Your task to perform on an android device: turn pop-ups on in chrome Image 0: 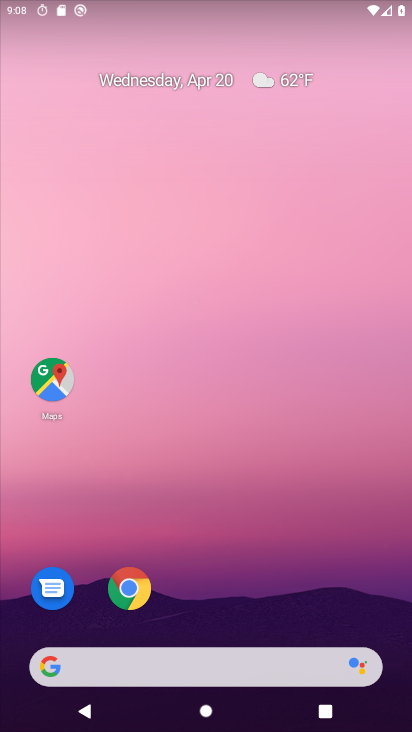
Step 0: drag from (303, 568) to (244, 36)
Your task to perform on an android device: turn pop-ups on in chrome Image 1: 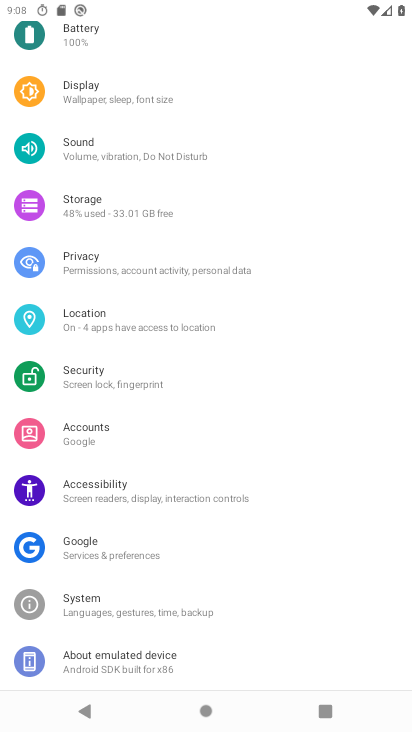
Step 1: press back button
Your task to perform on an android device: turn pop-ups on in chrome Image 2: 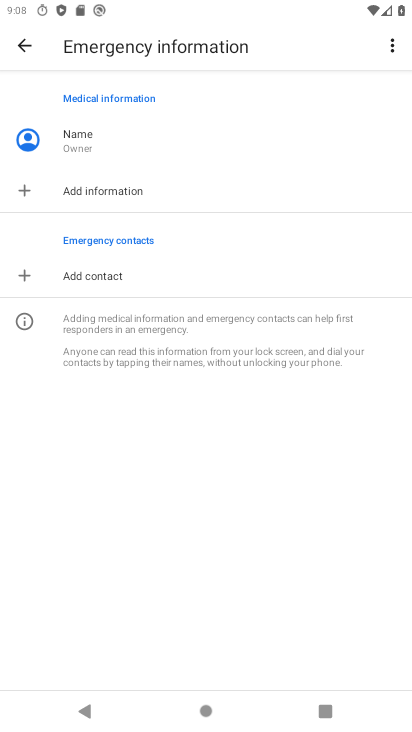
Step 2: press back button
Your task to perform on an android device: turn pop-ups on in chrome Image 3: 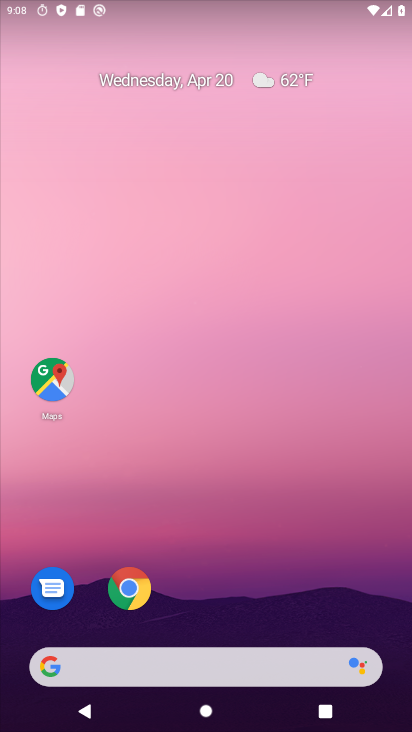
Step 3: drag from (265, 530) to (174, 65)
Your task to perform on an android device: turn pop-ups on in chrome Image 4: 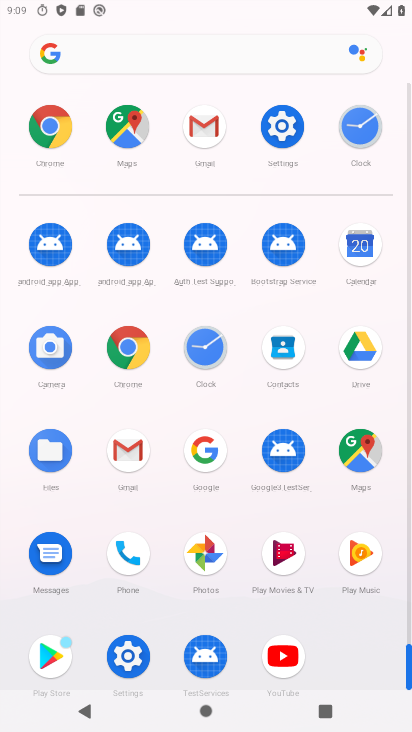
Step 4: click (53, 122)
Your task to perform on an android device: turn pop-ups on in chrome Image 5: 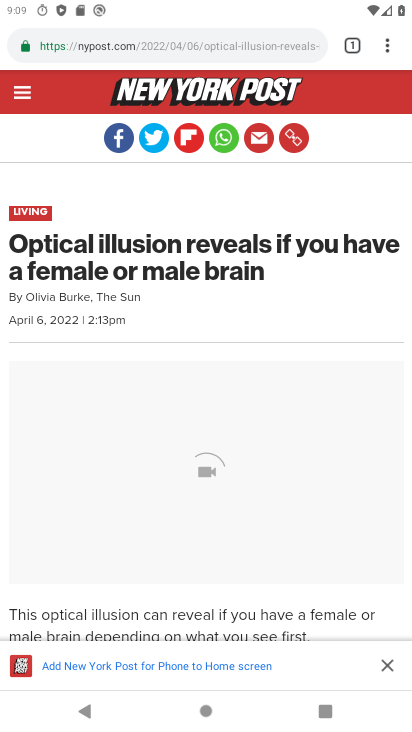
Step 5: drag from (382, 39) to (238, 540)
Your task to perform on an android device: turn pop-ups on in chrome Image 6: 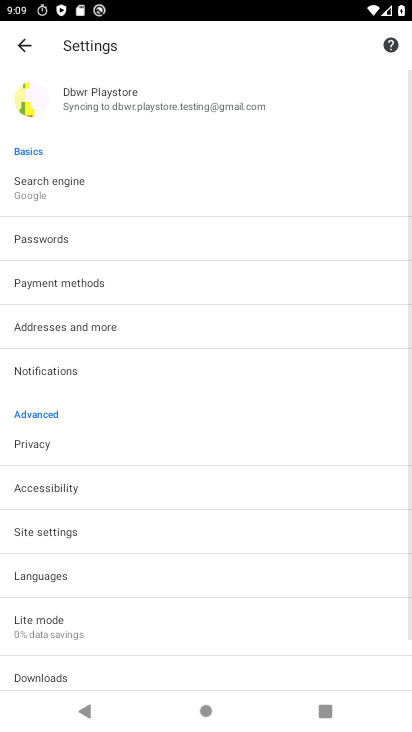
Step 6: drag from (234, 542) to (256, 252)
Your task to perform on an android device: turn pop-ups on in chrome Image 7: 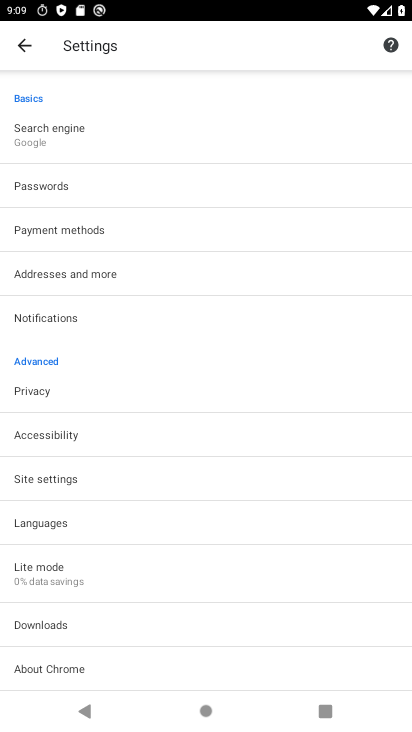
Step 7: click (77, 477)
Your task to perform on an android device: turn pop-ups on in chrome Image 8: 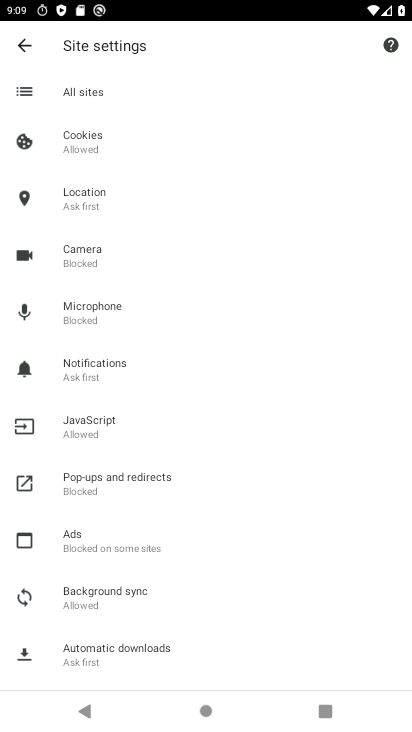
Step 8: click (130, 474)
Your task to perform on an android device: turn pop-ups on in chrome Image 9: 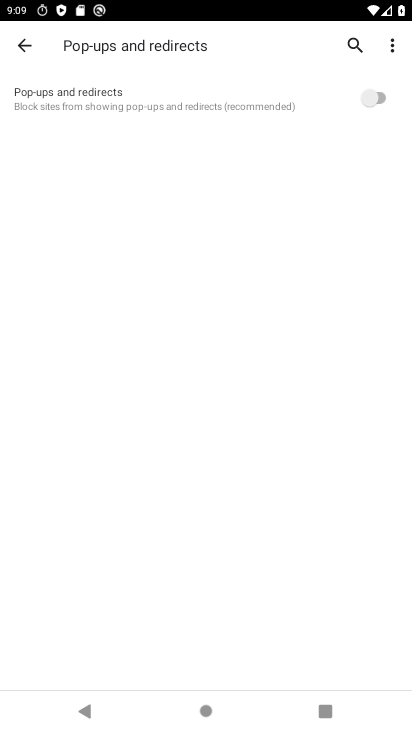
Step 9: click (372, 104)
Your task to perform on an android device: turn pop-ups on in chrome Image 10: 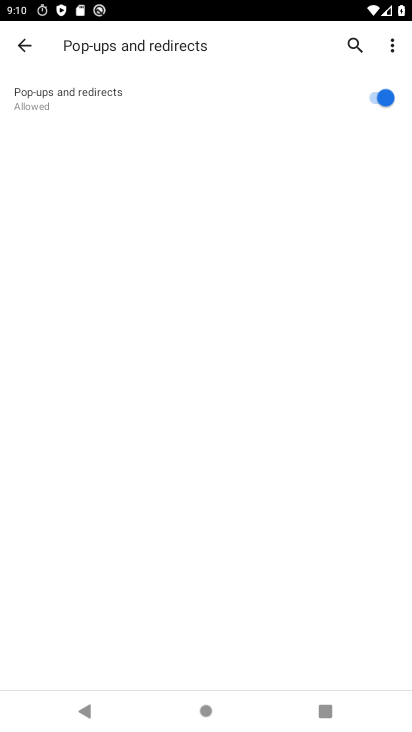
Step 10: task complete